Your task to perform on an android device: Open Chrome and go to settings Image 0: 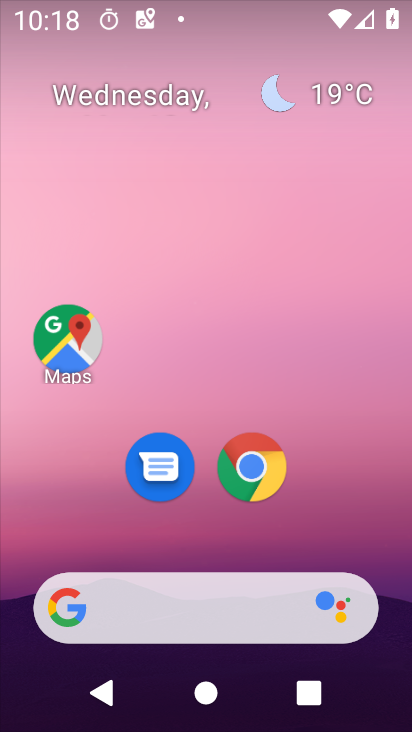
Step 0: click (264, 459)
Your task to perform on an android device: Open Chrome and go to settings Image 1: 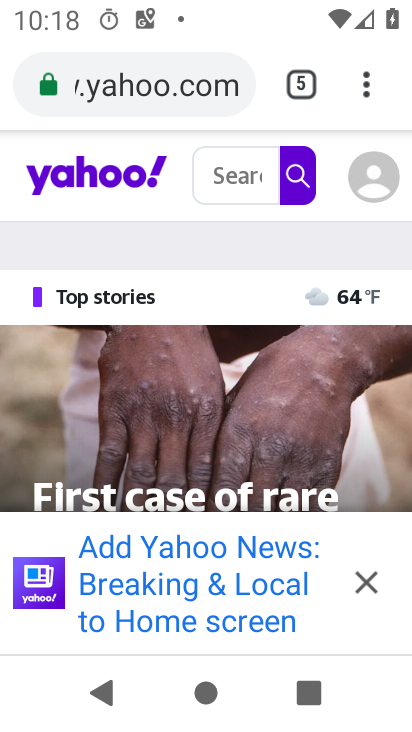
Step 1: click (364, 79)
Your task to perform on an android device: Open Chrome and go to settings Image 2: 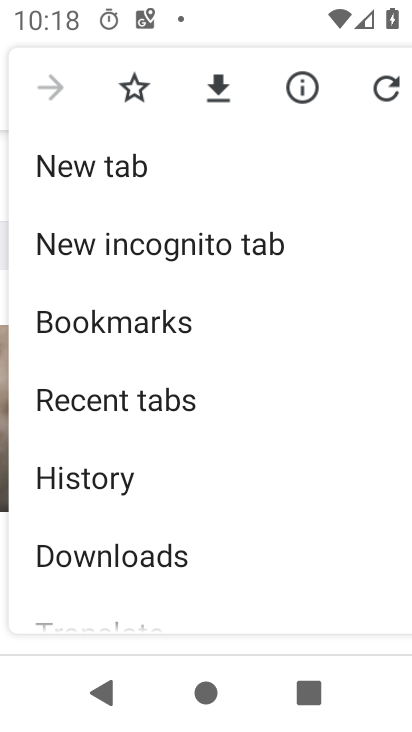
Step 2: drag from (269, 438) to (195, 47)
Your task to perform on an android device: Open Chrome and go to settings Image 3: 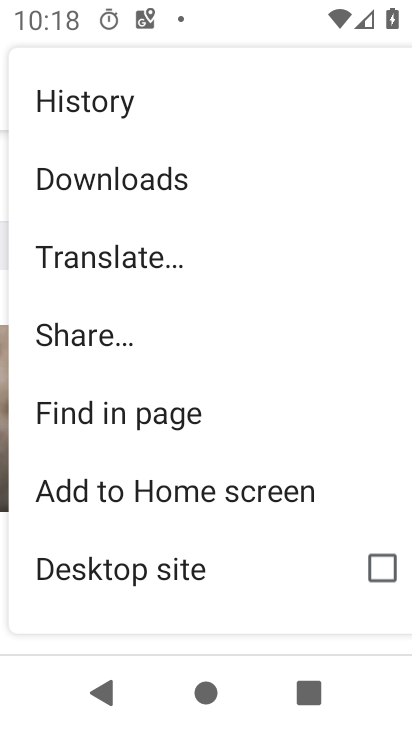
Step 3: drag from (199, 554) to (172, 117)
Your task to perform on an android device: Open Chrome and go to settings Image 4: 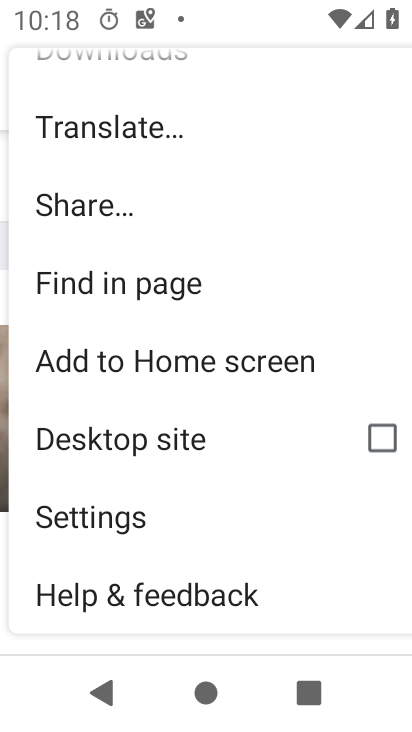
Step 4: click (132, 496)
Your task to perform on an android device: Open Chrome and go to settings Image 5: 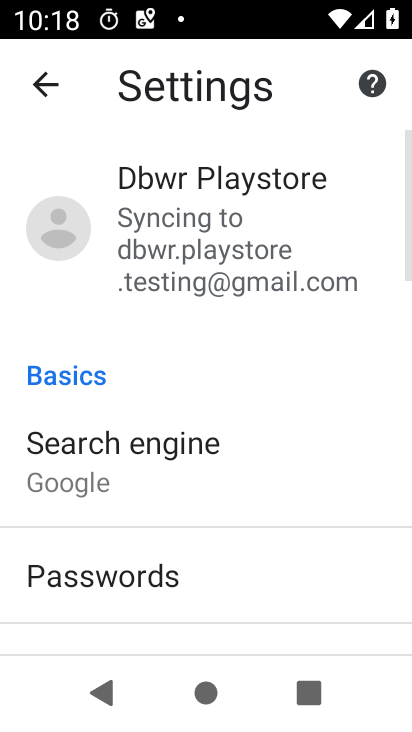
Step 5: task complete